Your task to perform on an android device: turn on showing notifications on the lock screen Image 0: 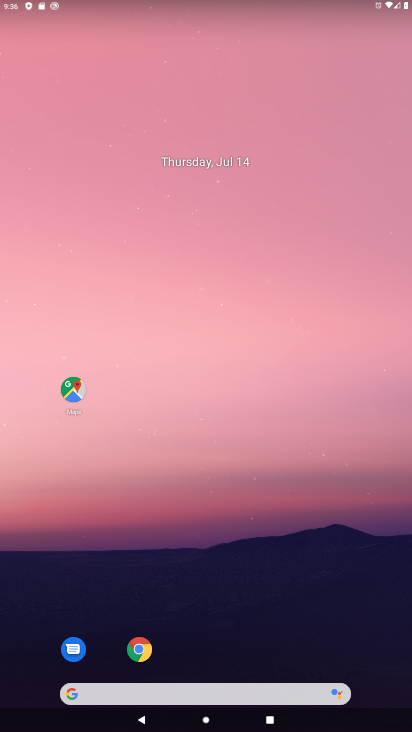
Step 0: drag from (231, 657) to (208, 209)
Your task to perform on an android device: turn on showing notifications on the lock screen Image 1: 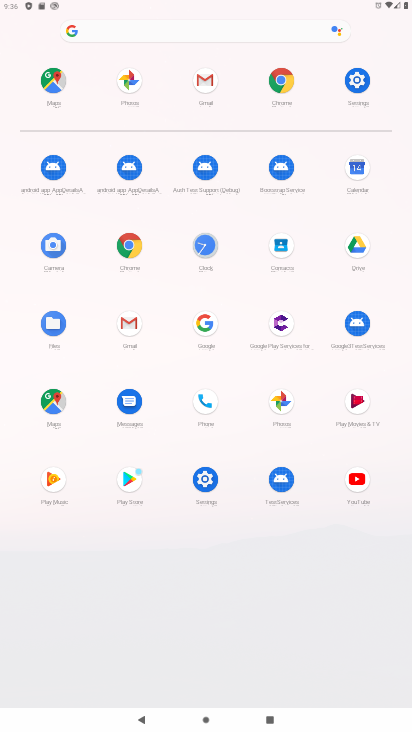
Step 1: click (363, 82)
Your task to perform on an android device: turn on showing notifications on the lock screen Image 2: 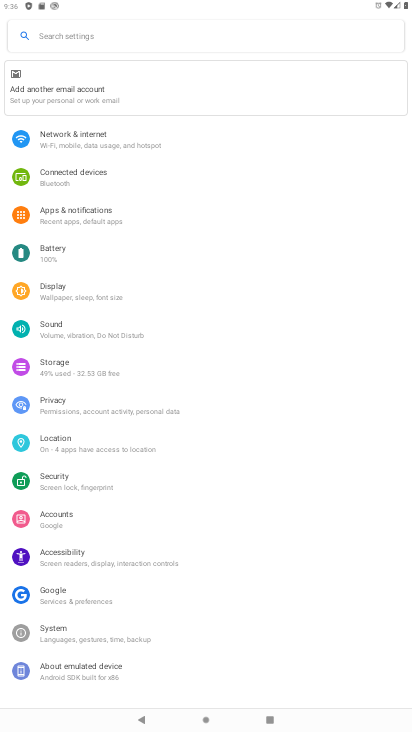
Step 2: click (92, 217)
Your task to perform on an android device: turn on showing notifications on the lock screen Image 3: 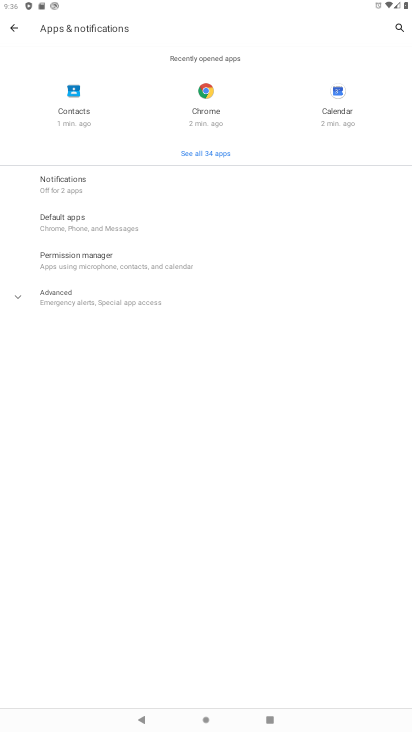
Step 3: click (92, 186)
Your task to perform on an android device: turn on showing notifications on the lock screen Image 4: 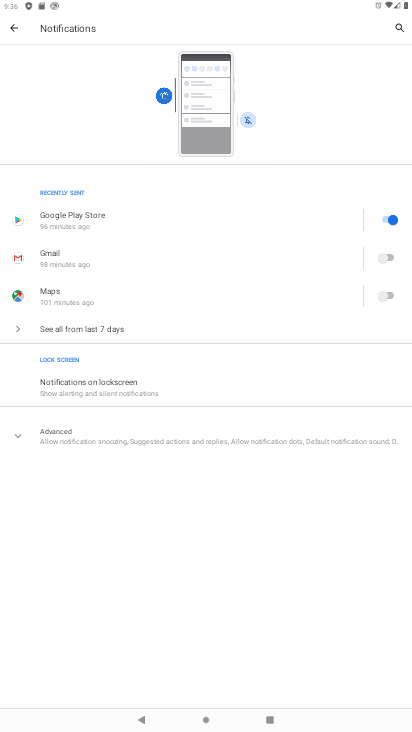
Step 4: click (118, 378)
Your task to perform on an android device: turn on showing notifications on the lock screen Image 5: 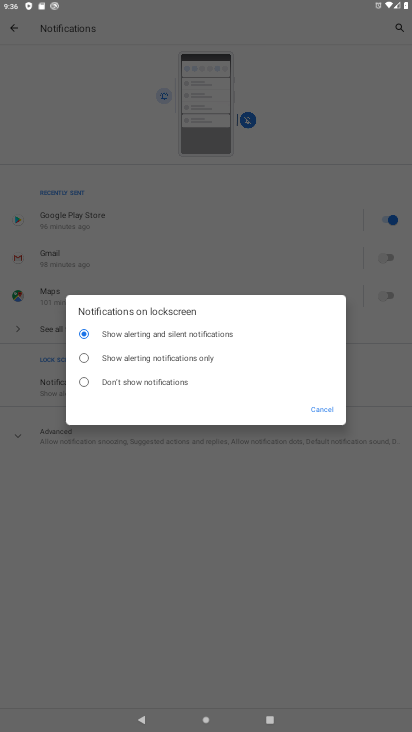
Step 5: task complete